Your task to perform on an android device: open app "DoorDash - Dasher" (install if not already installed) Image 0: 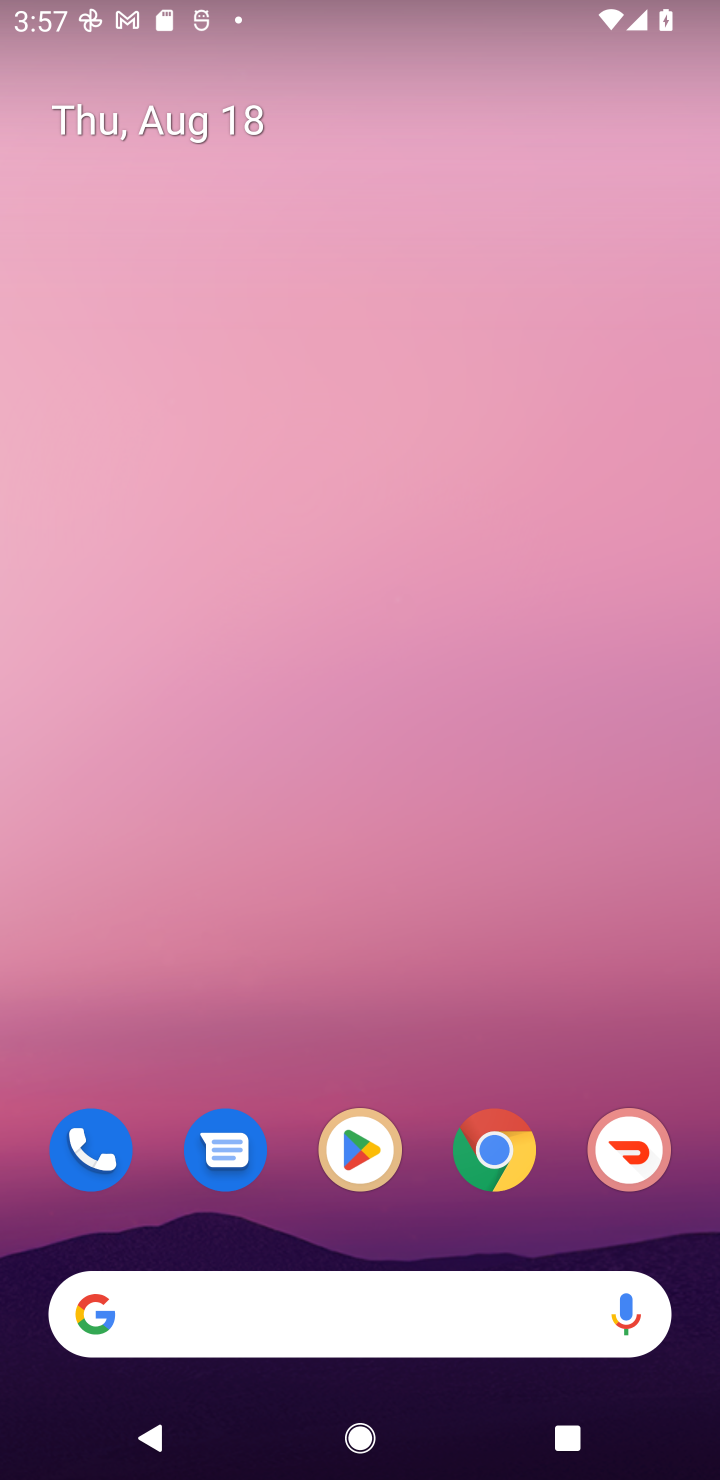
Step 0: click (352, 1137)
Your task to perform on an android device: open app "DoorDash - Dasher" (install if not already installed) Image 1: 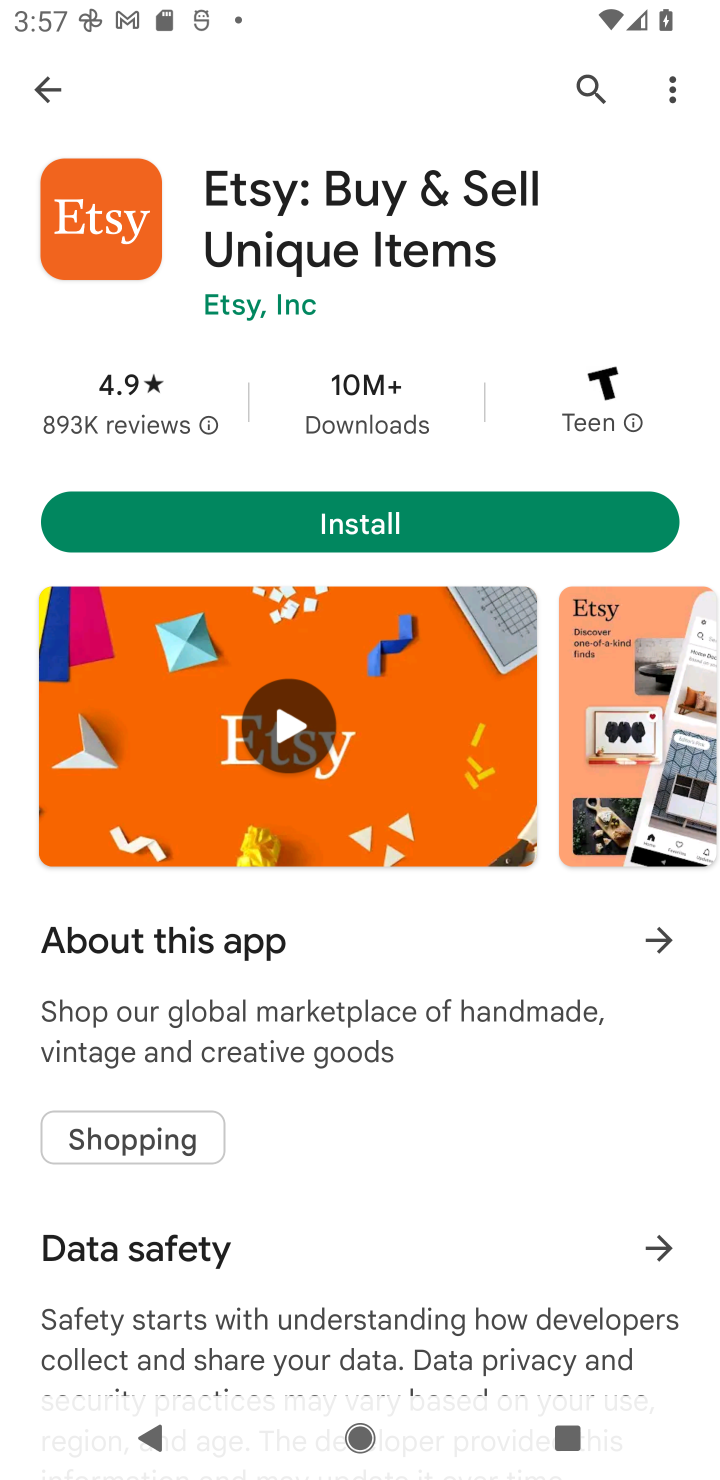
Step 1: click (588, 85)
Your task to perform on an android device: open app "DoorDash - Dasher" (install if not already installed) Image 2: 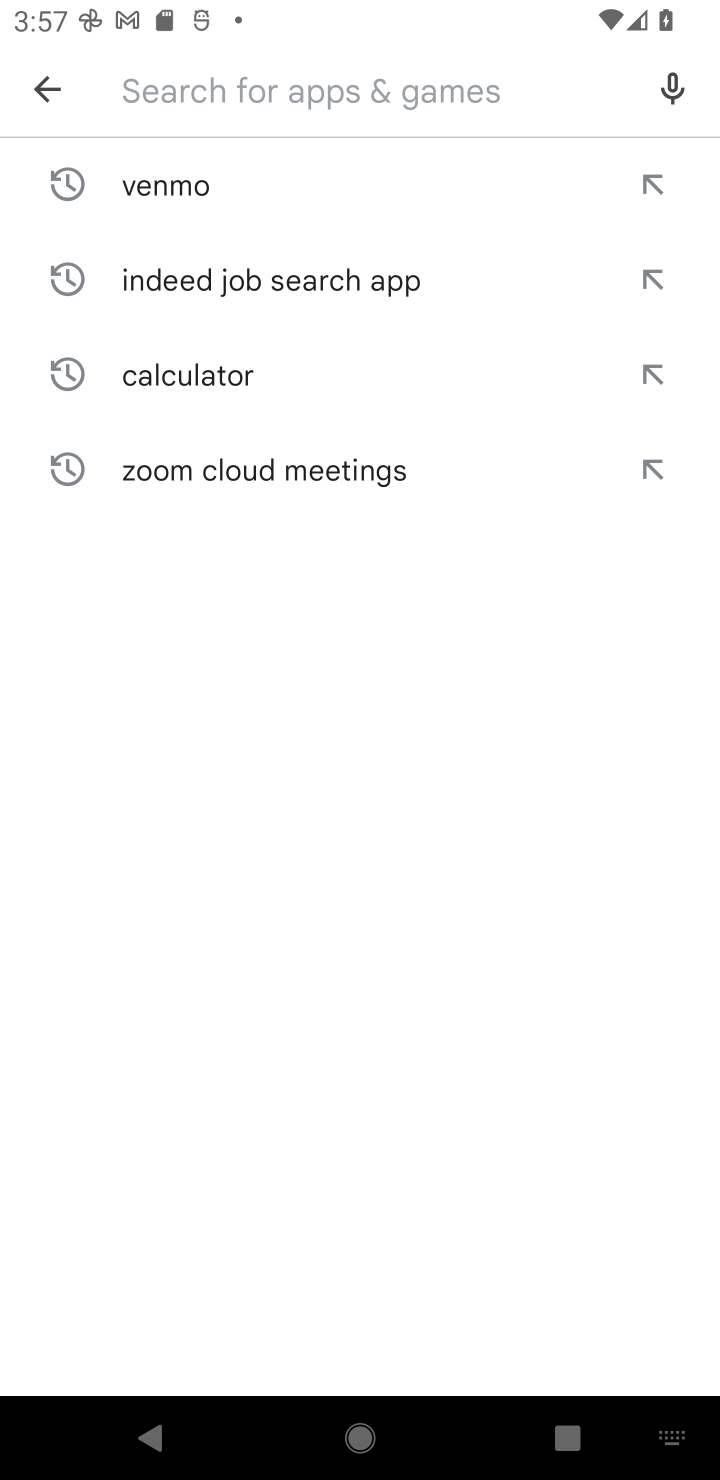
Step 2: type "DoorDash - Dasher"
Your task to perform on an android device: open app "DoorDash - Dasher" (install if not already installed) Image 3: 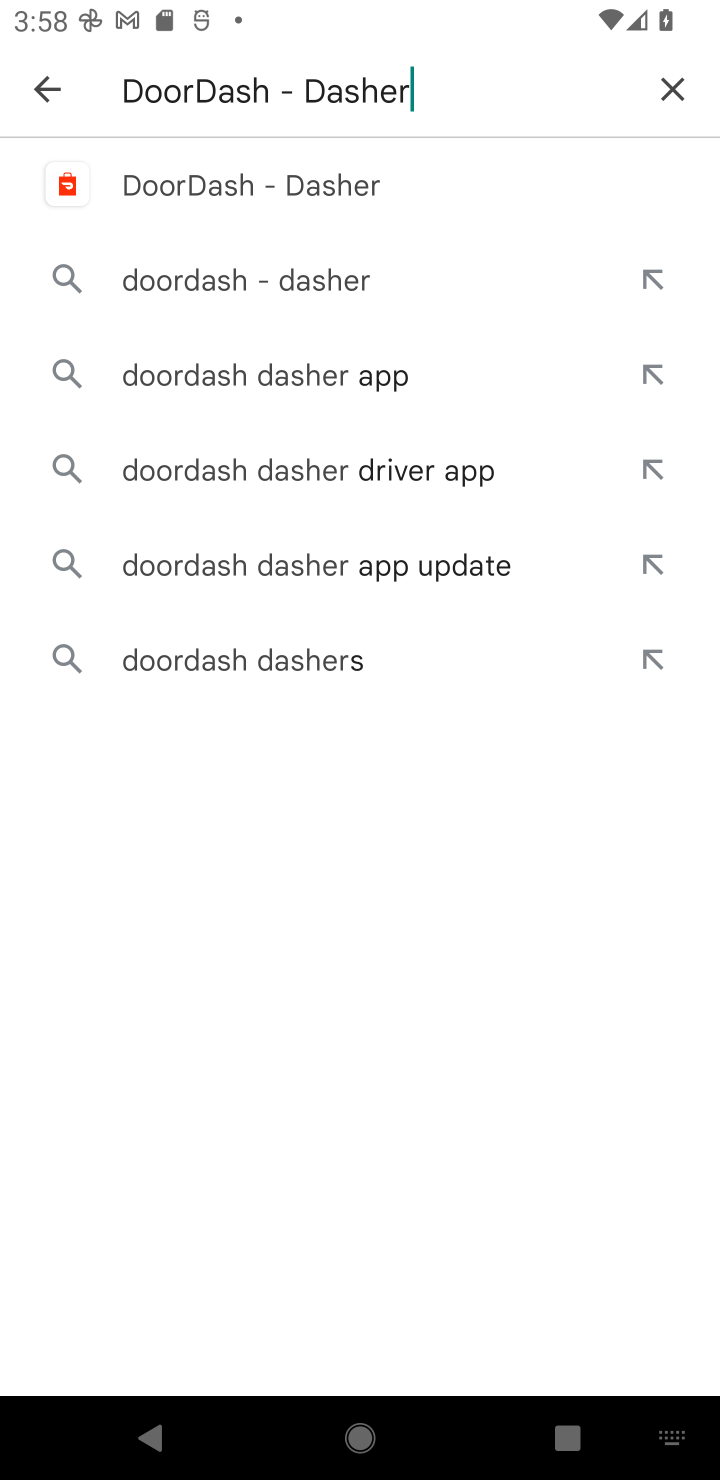
Step 3: click (282, 179)
Your task to perform on an android device: open app "DoorDash - Dasher" (install if not already installed) Image 4: 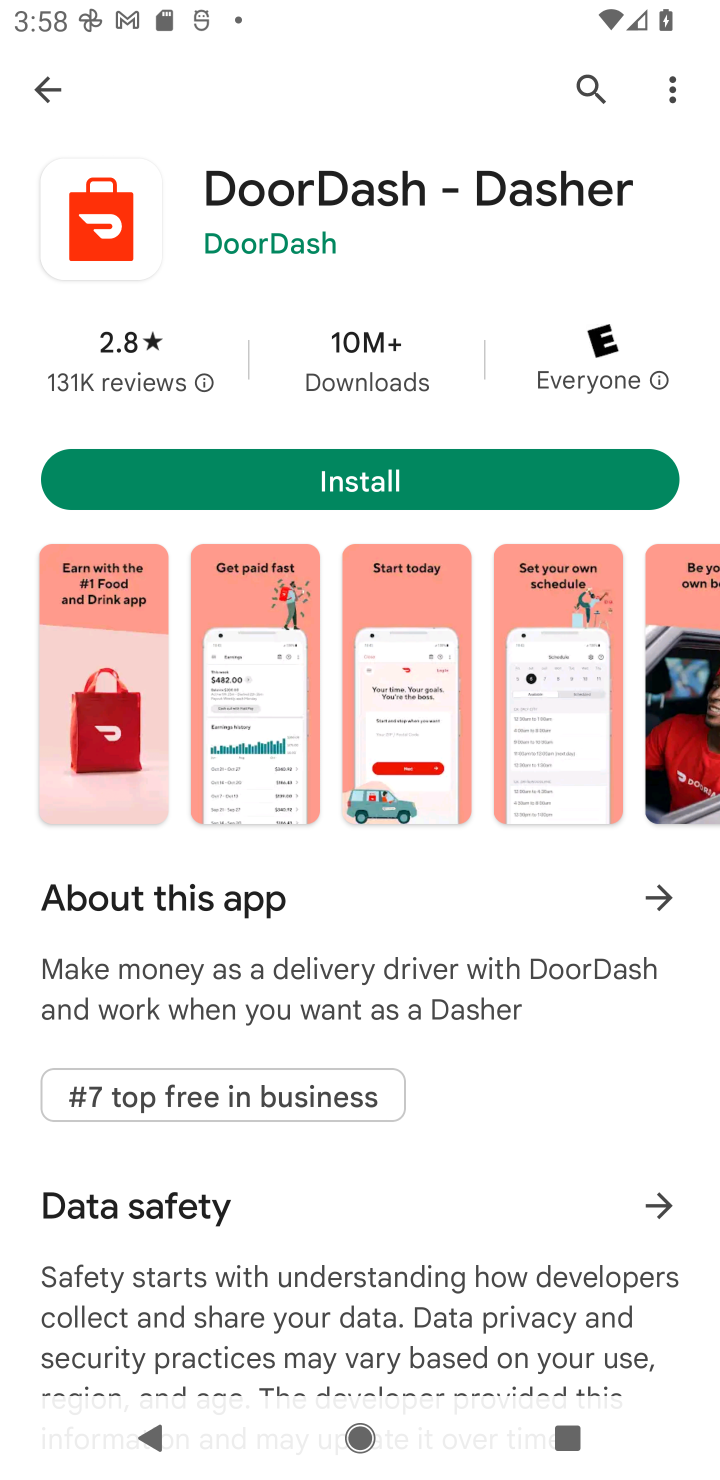
Step 4: click (374, 480)
Your task to perform on an android device: open app "DoorDash - Dasher" (install if not already installed) Image 5: 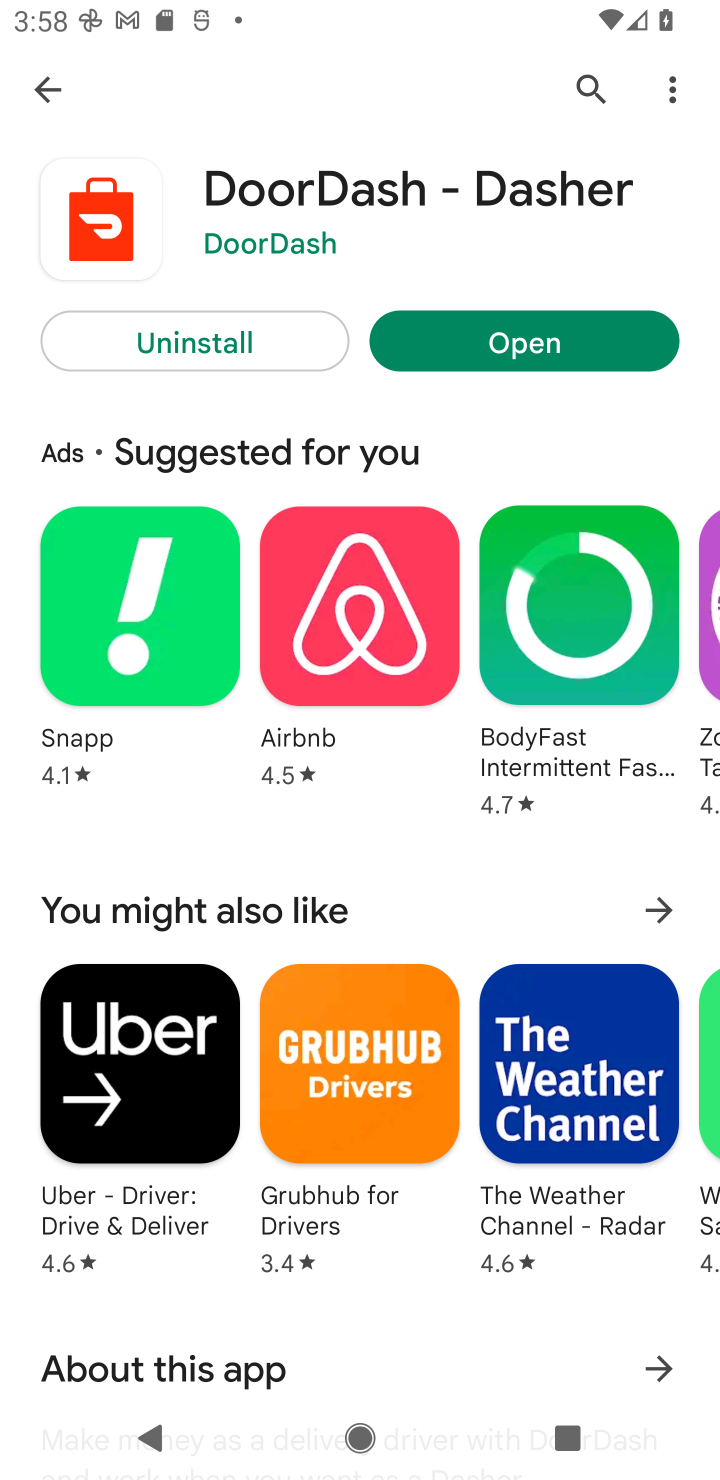
Step 5: click (527, 336)
Your task to perform on an android device: open app "DoorDash - Dasher" (install if not already installed) Image 6: 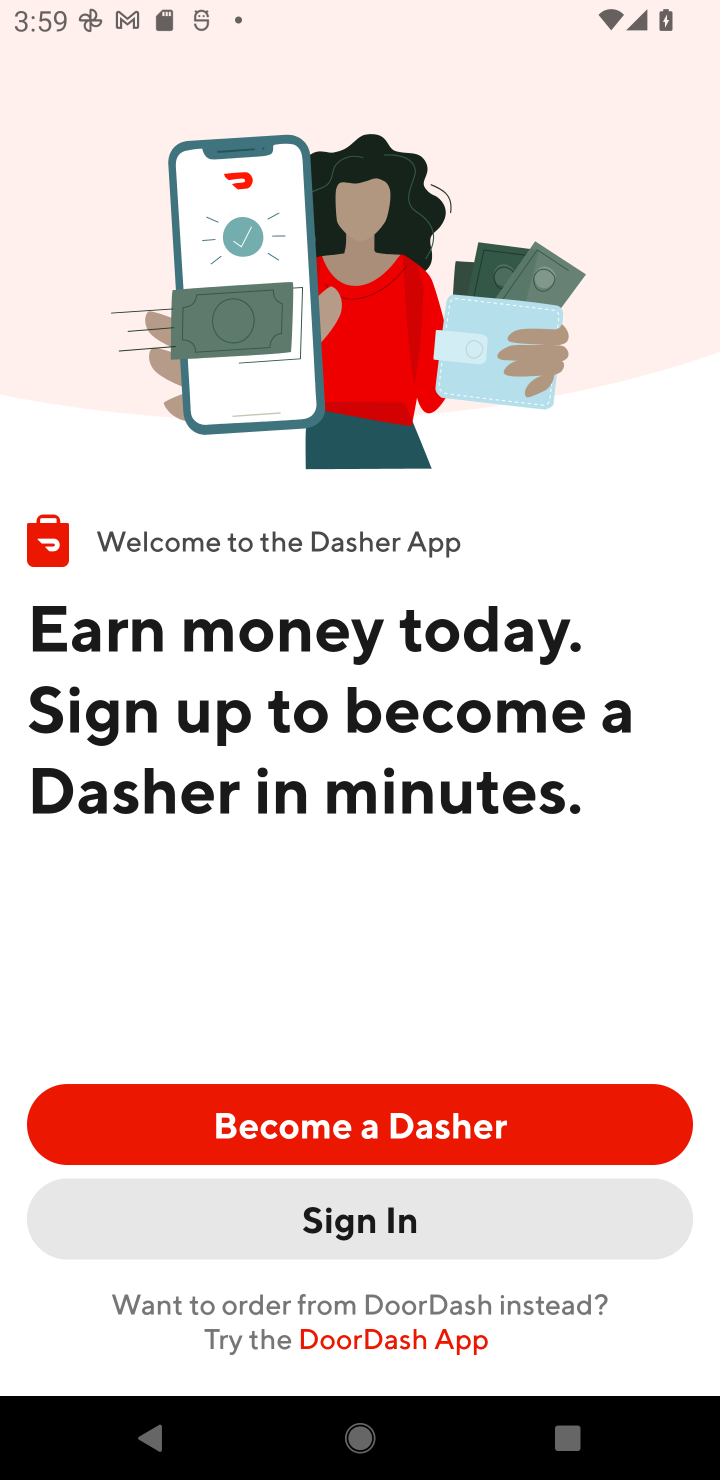
Step 6: task complete